Your task to perform on an android device: toggle priority inbox in the gmail app Image 0: 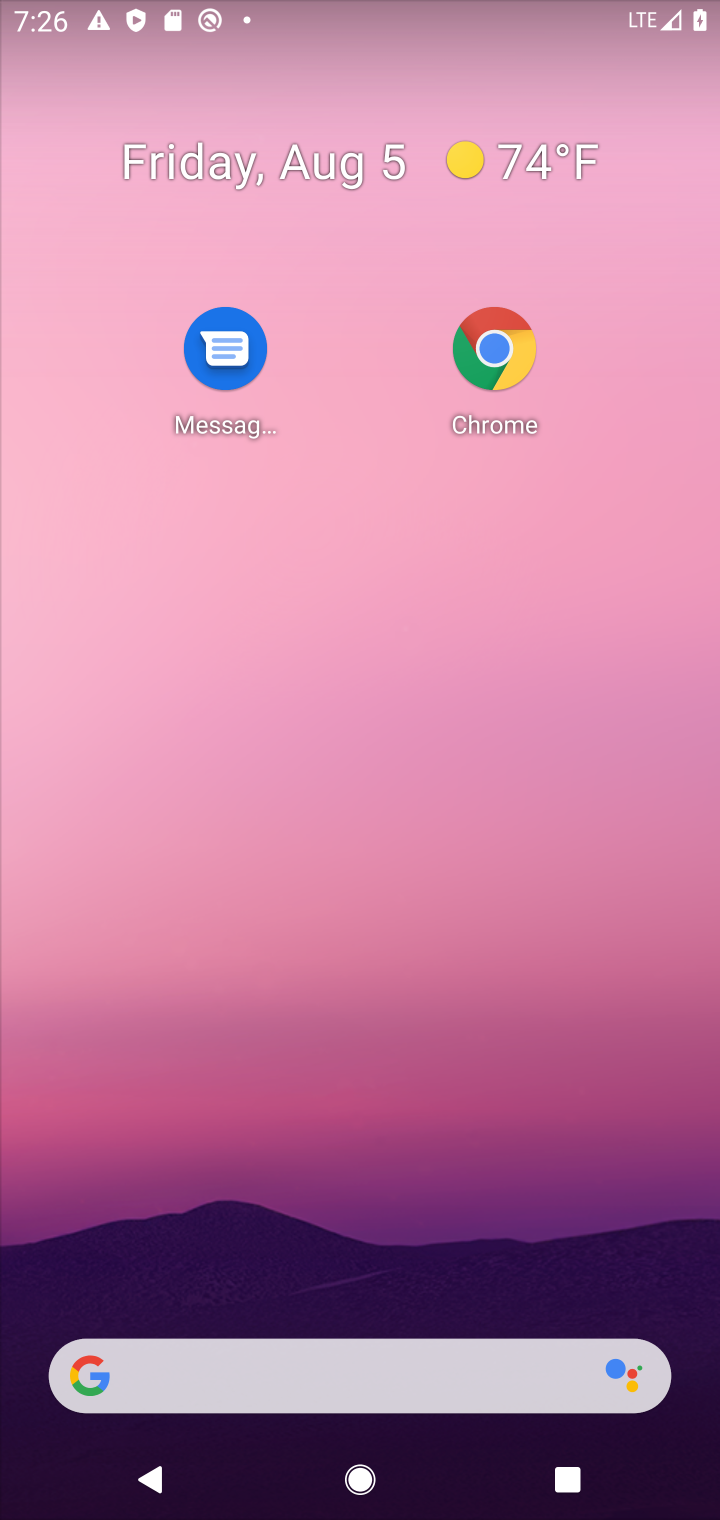
Step 0: press home button
Your task to perform on an android device: toggle priority inbox in the gmail app Image 1: 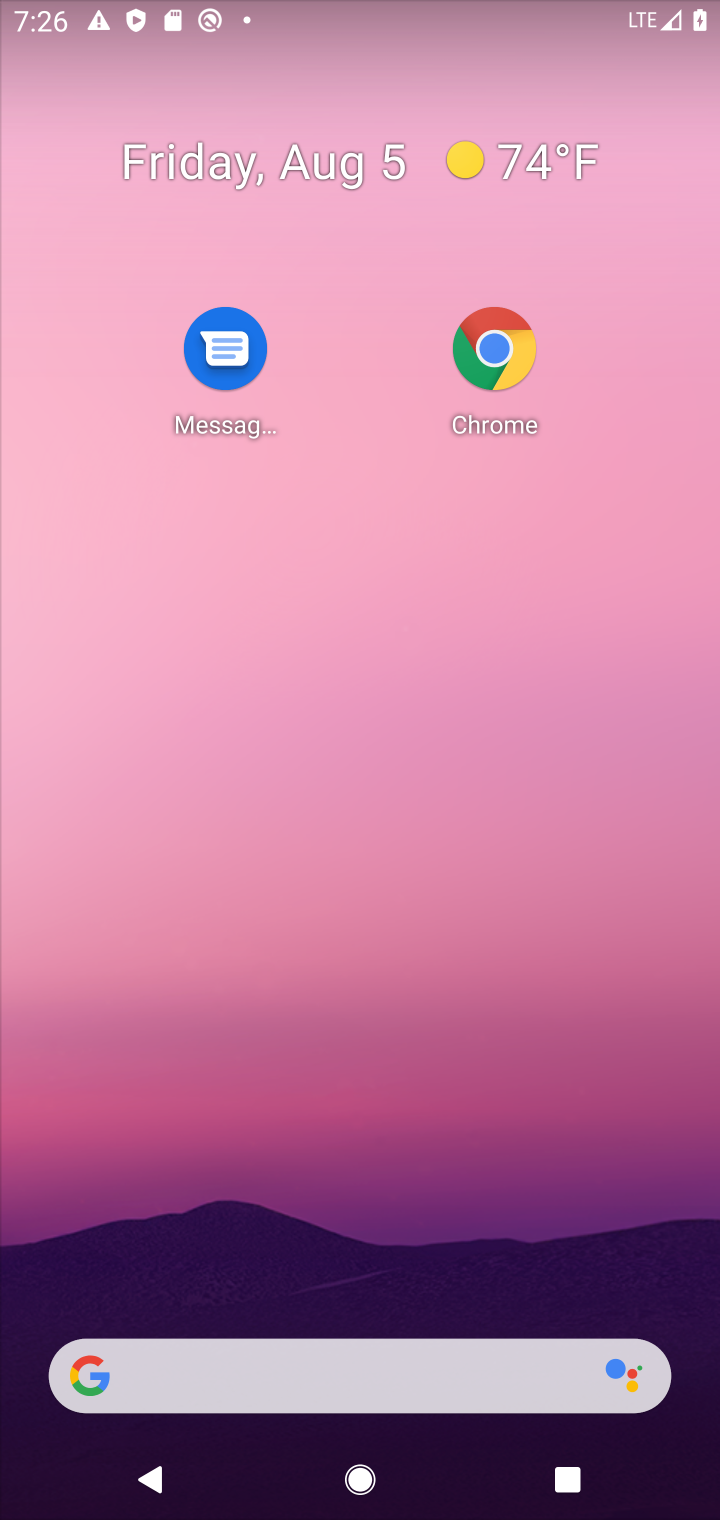
Step 1: drag from (452, 1412) to (241, 611)
Your task to perform on an android device: toggle priority inbox in the gmail app Image 2: 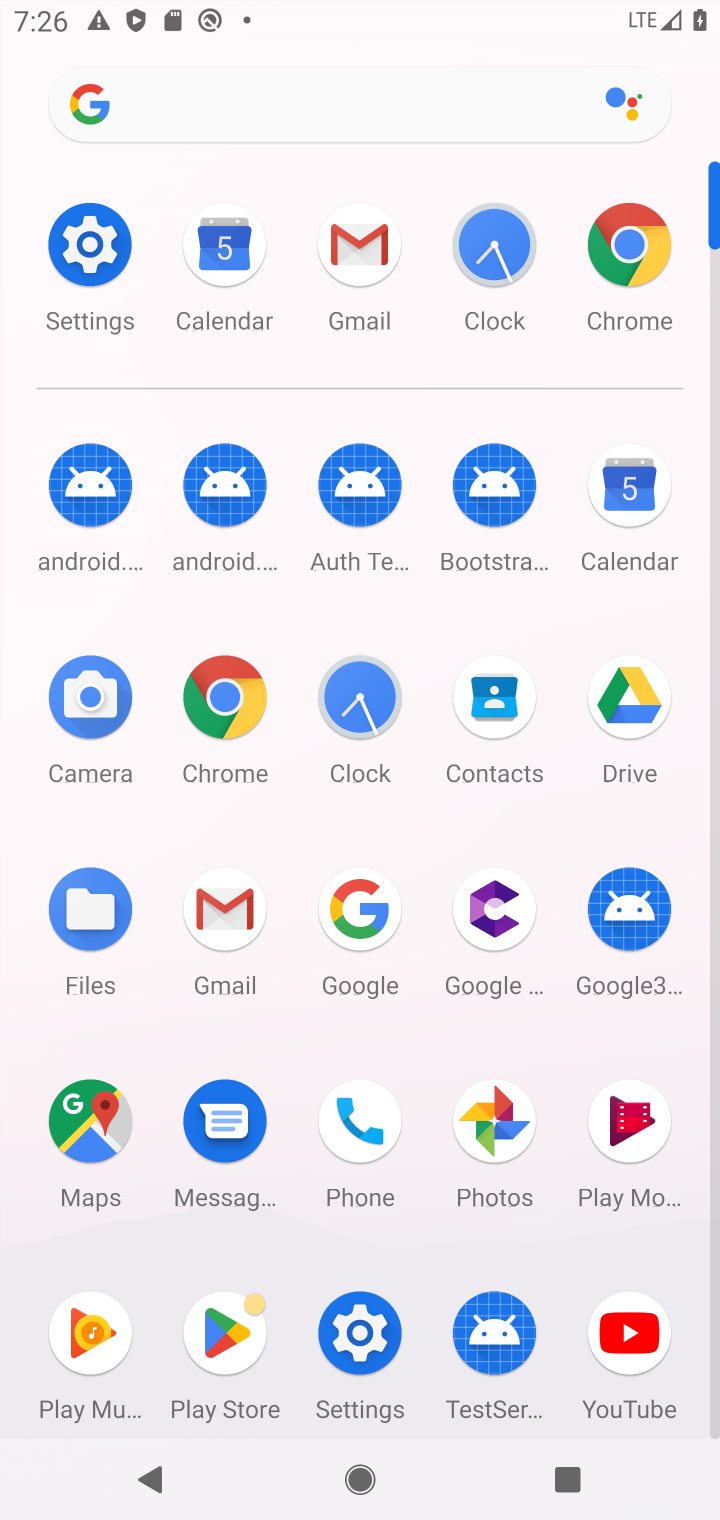
Step 2: click (347, 232)
Your task to perform on an android device: toggle priority inbox in the gmail app Image 3: 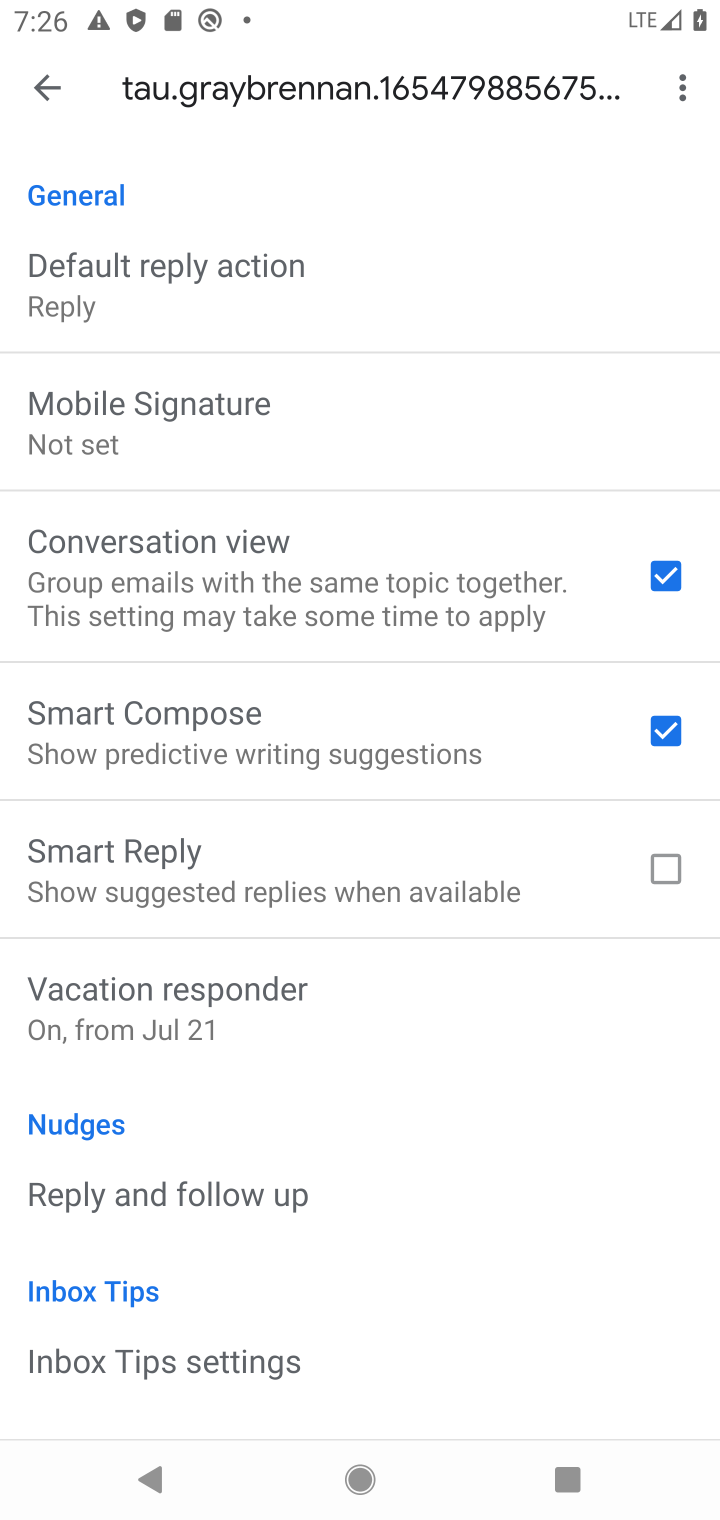
Step 3: drag from (203, 290) to (502, 1107)
Your task to perform on an android device: toggle priority inbox in the gmail app Image 4: 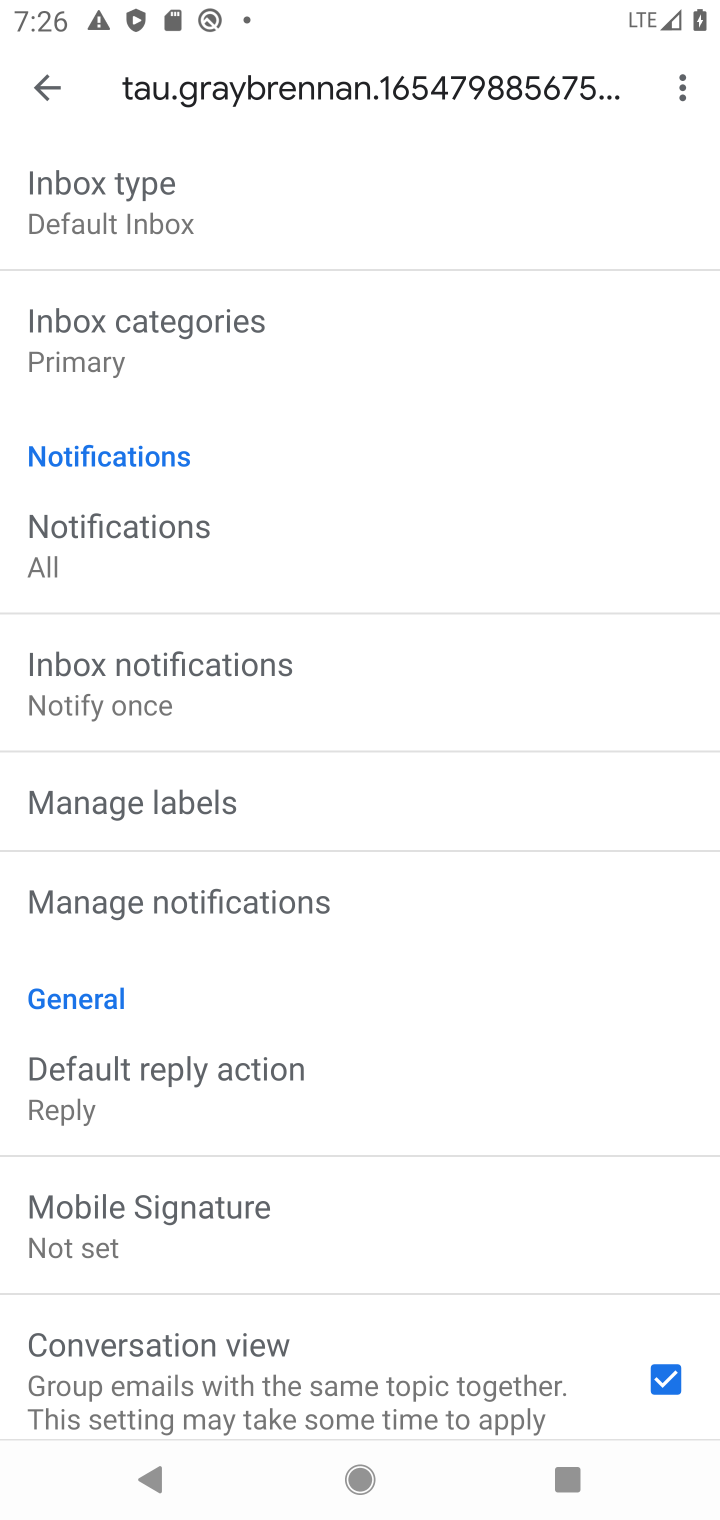
Step 4: click (169, 212)
Your task to perform on an android device: toggle priority inbox in the gmail app Image 5: 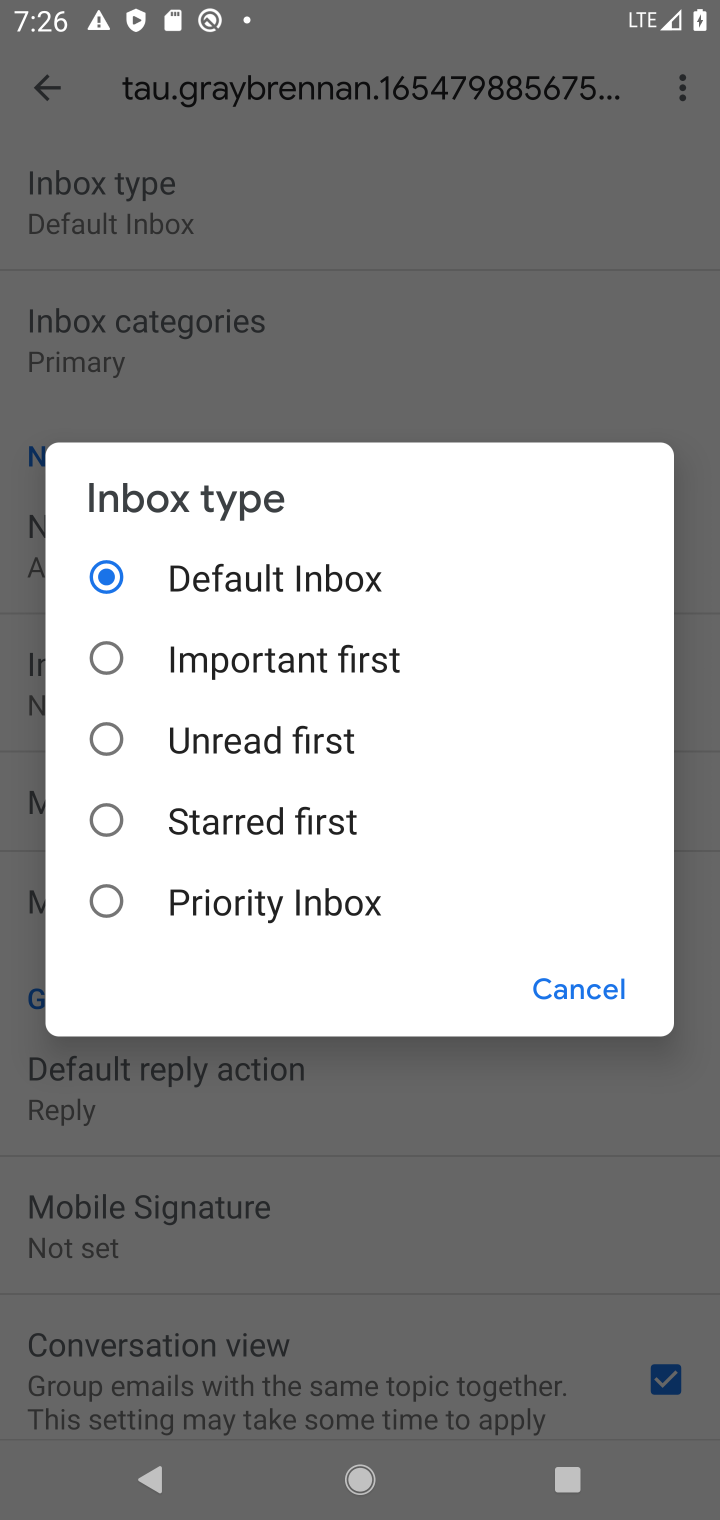
Step 5: click (304, 900)
Your task to perform on an android device: toggle priority inbox in the gmail app Image 6: 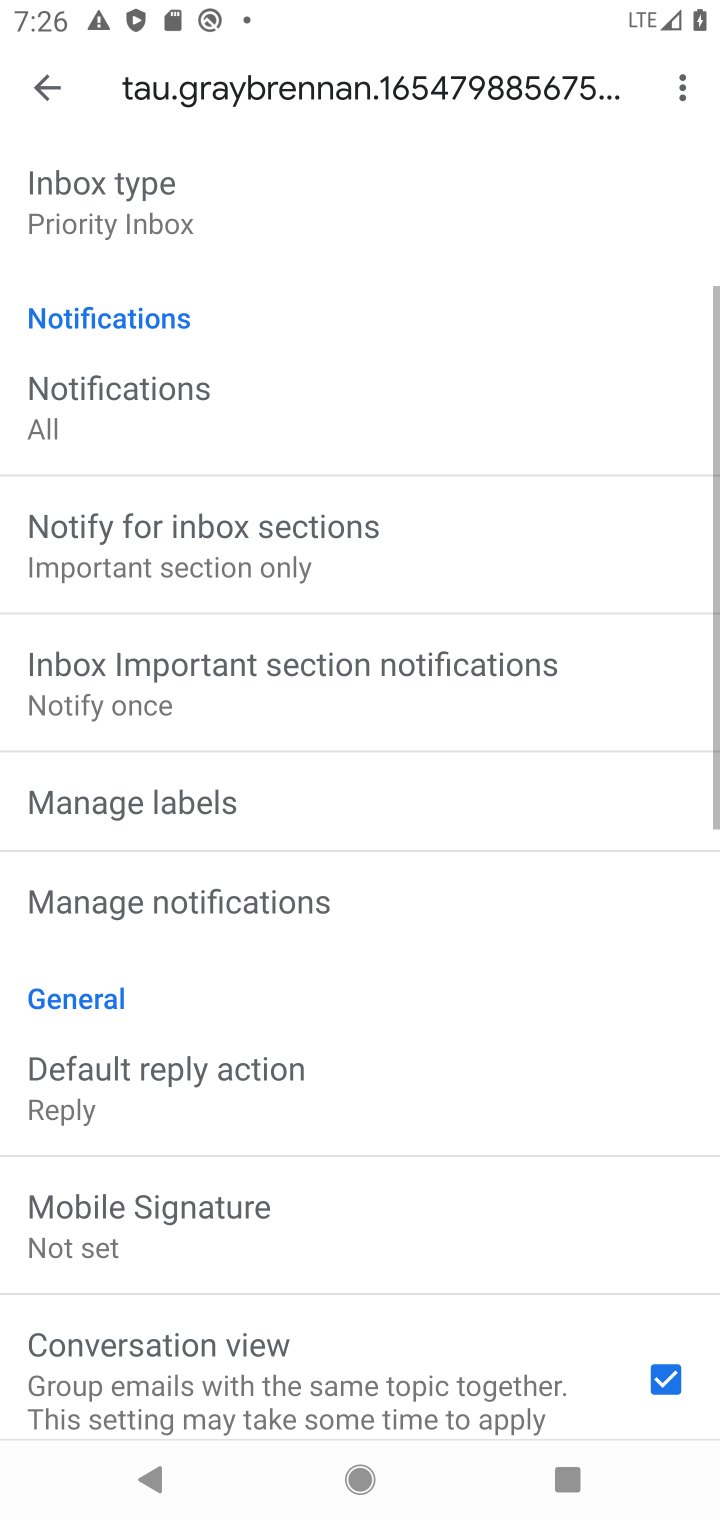
Step 6: click (169, 229)
Your task to perform on an android device: toggle priority inbox in the gmail app Image 7: 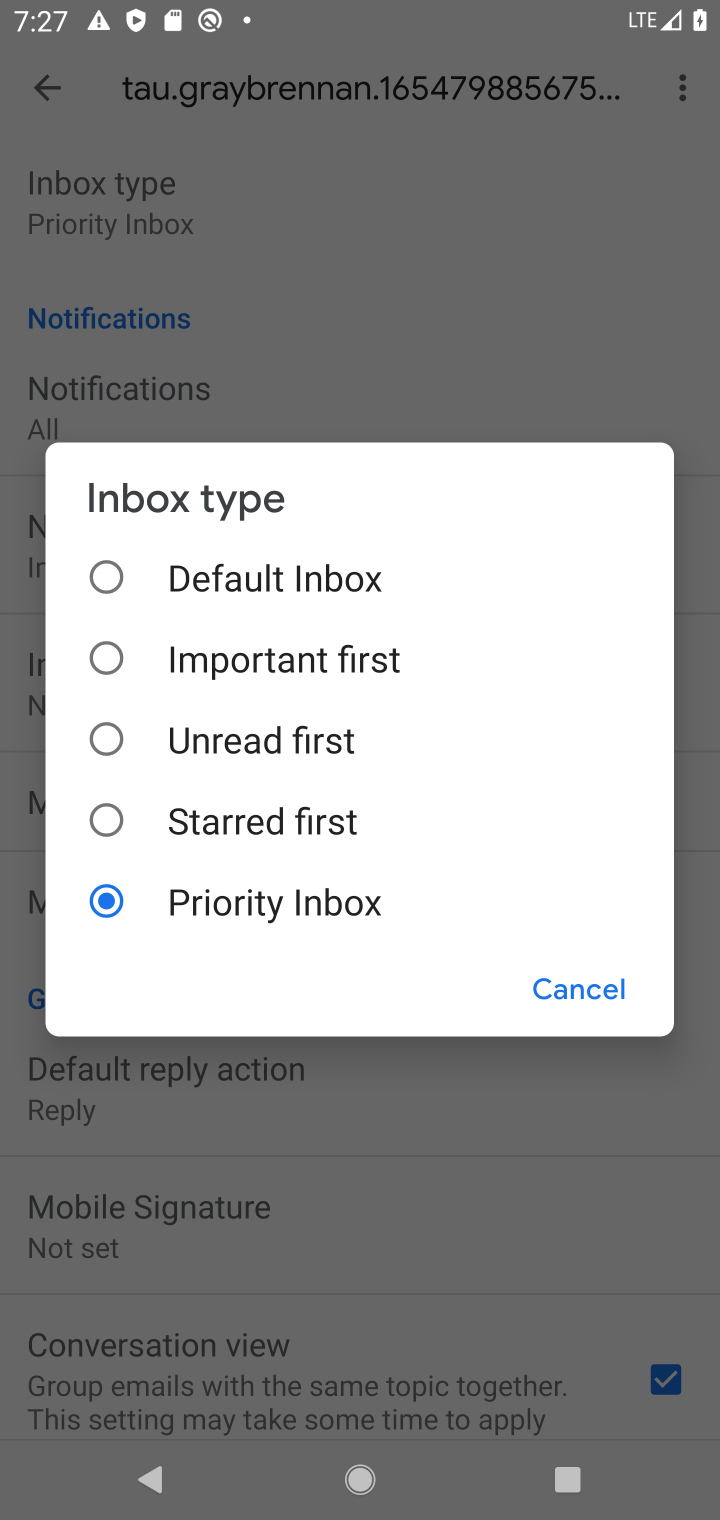
Step 7: task complete